Your task to perform on an android device: Check the news Image 0: 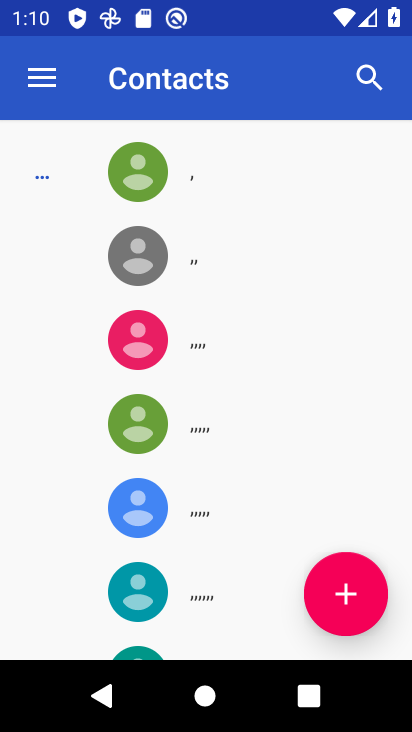
Step 0: press home button
Your task to perform on an android device: Check the news Image 1: 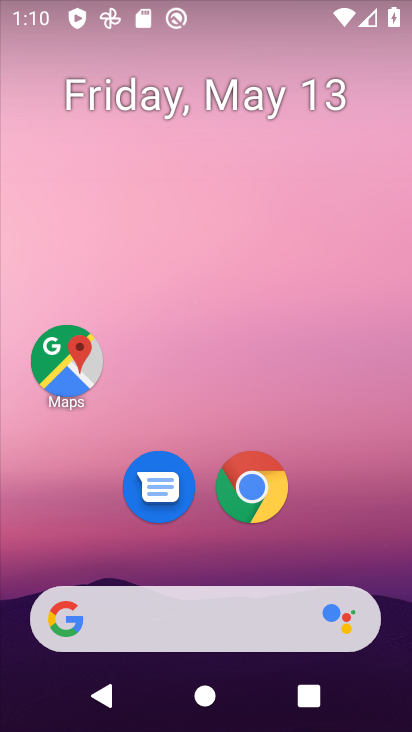
Step 1: drag from (355, 557) to (319, 155)
Your task to perform on an android device: Check the news Image 2: 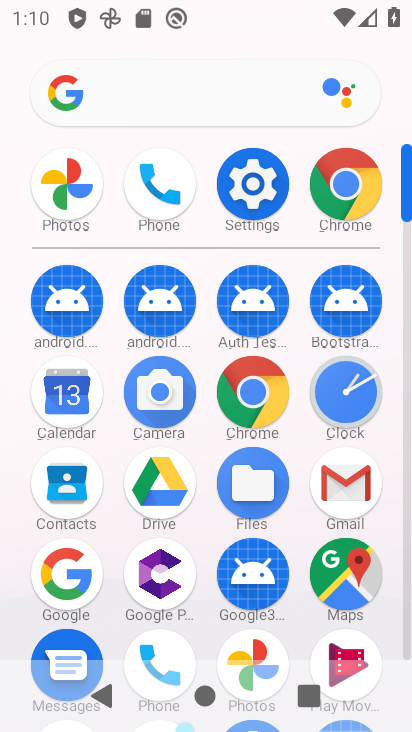
Step 2: click (246, 403)
Your task to perform on an android device: Check the news Image 3: 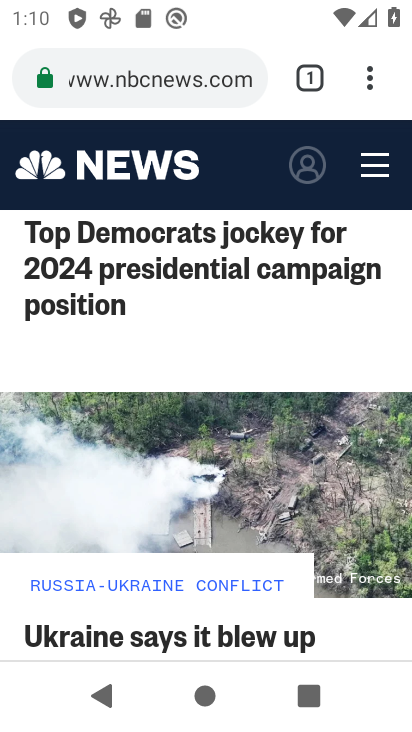
Step 3: click (186, 63)
Your task to perform on an android device: Check the news Image 4: 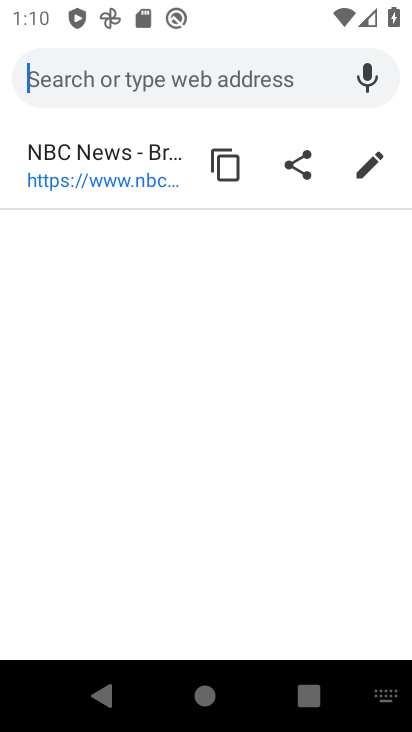
Step 4: type "check the news"
Your task to perform on an android device: Check the news Image 5: 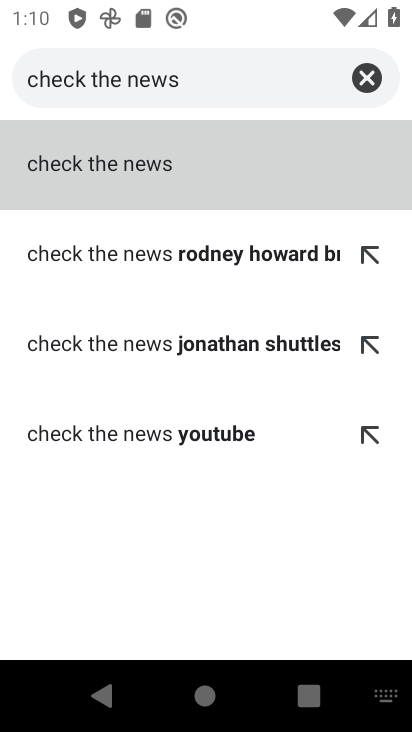
Step 5: click (178, 166)
Your task to perform on an android device: Check the news Image 6: 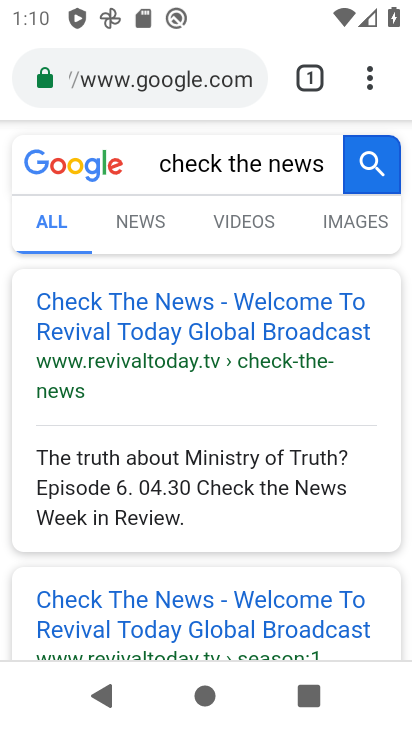
Step 6: click (105, 330)
Your task to perform on an android device: Check the news Image 7: 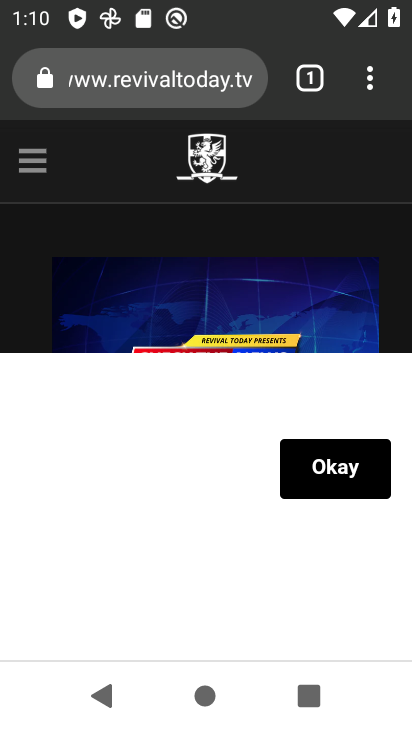
Step 7: task complete